Your task to perform on an android device: Open battery settings Image 0: 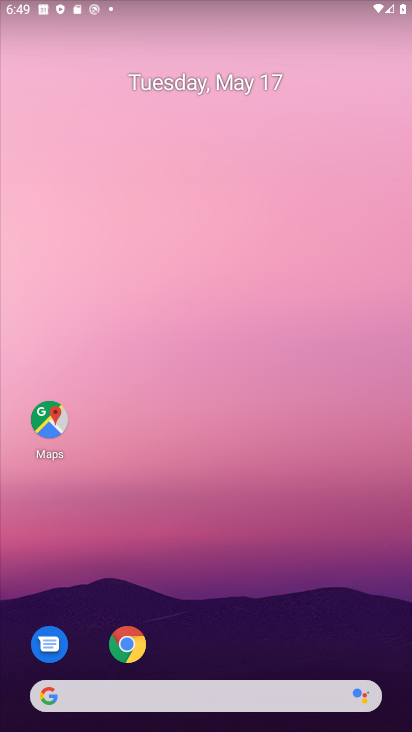
Step 0: drag from (313, 663) to (358, 86)
Your task to perform on an android device: Open battery settings Image 1: 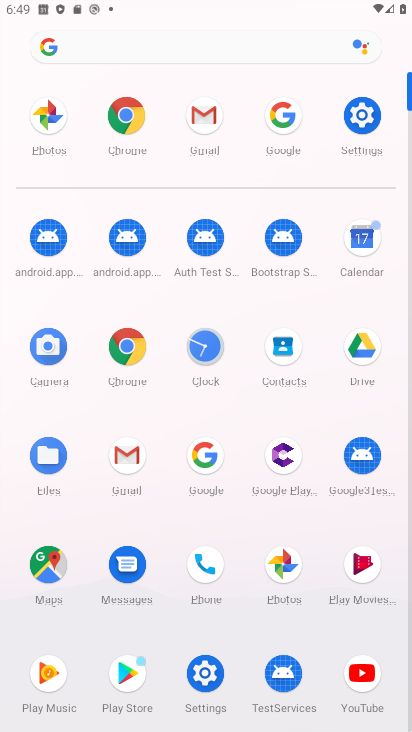
Step 1: click (361, 132)
Your task to perform on an android device: Open battery settings Image 2: 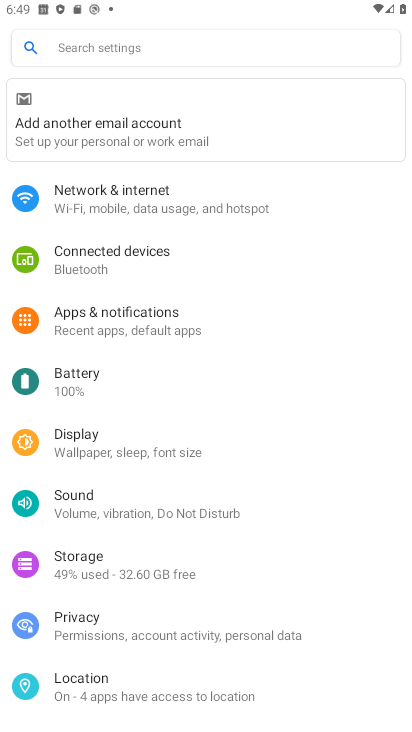
Step 2: click (163, 384)
Your task to perform on an android device: Open battery settings Image 3: 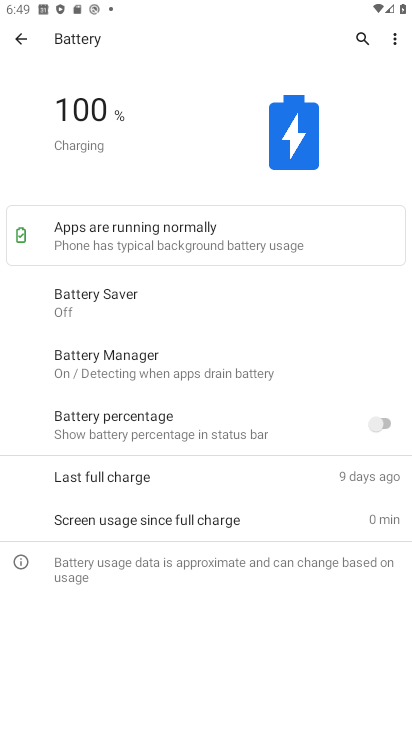
Step 3: task complete